Your task to perform on an android device: visit the assistant section in the google photos Image 0: 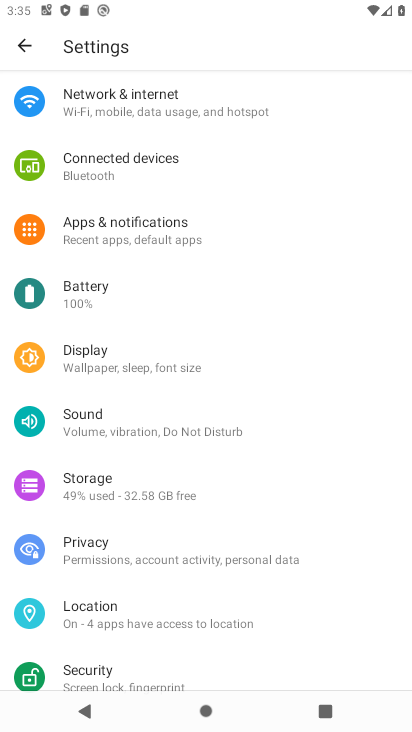
Step 0: press home button
Your task to perform on an android device: visit the assistant section in the google photos Image 1: 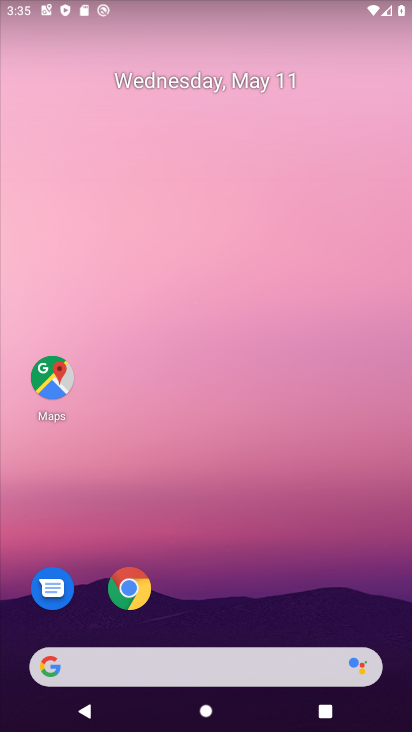
Step 1: drag from (240, 501) to (362, 5)
Your task to perform on an android device: visit the assistant section in the google photos Image 2: 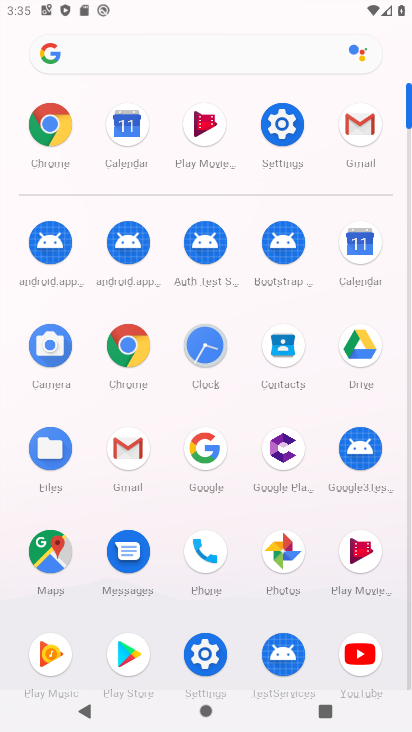
Step 2: click (280, 560)
Your task to perform on an android device: visit the assistant section in the google photos Image 3: 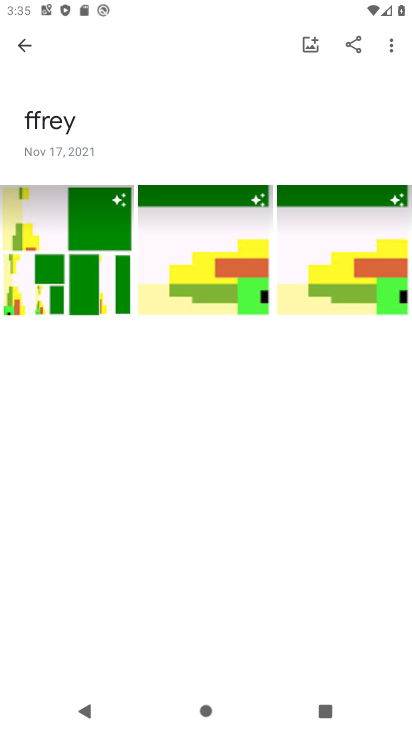
Step 3: click (21, 43)
Your task to perform on an android device: visit the assistant section in the google photos Image 4: 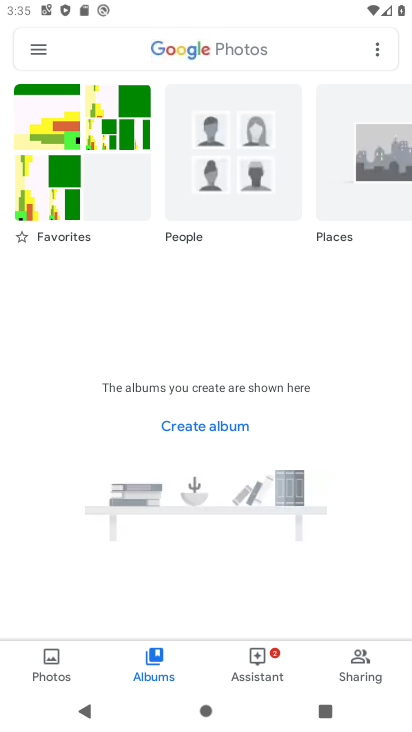
Step 4: click (260, 668)
Your task to perform on an android device: visit the assistant section in the google photos Image 5: 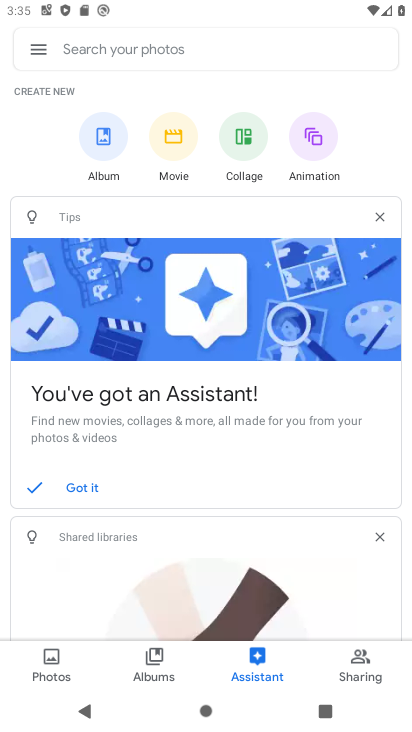
Step 5: task complete